Your task to perform on an android device: clear history in the chrome app Image 0: 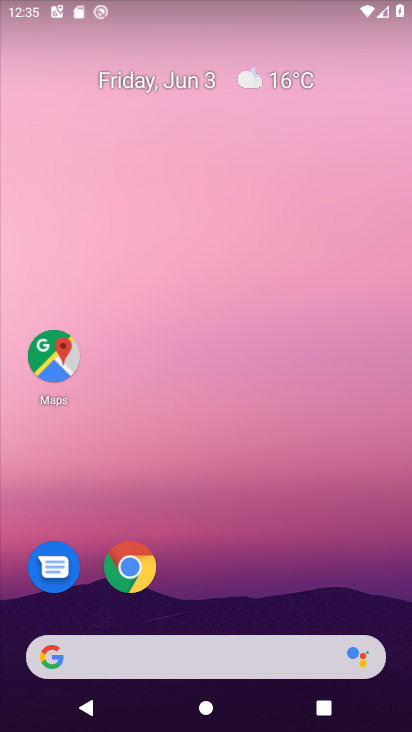
Step 0: click (151, 576)
Your task to perform on an android device: clear history in the chrome app Image 1: 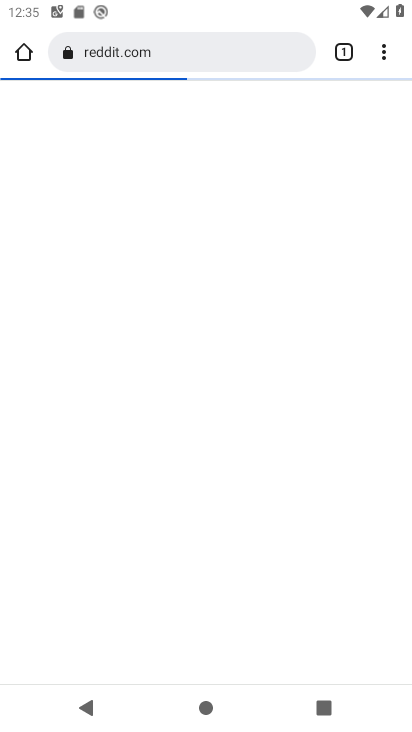
Step 1: drag from (337, 69) to (340, 191)
Your task to perform on an android device: clear history in the chrome app Image 2: 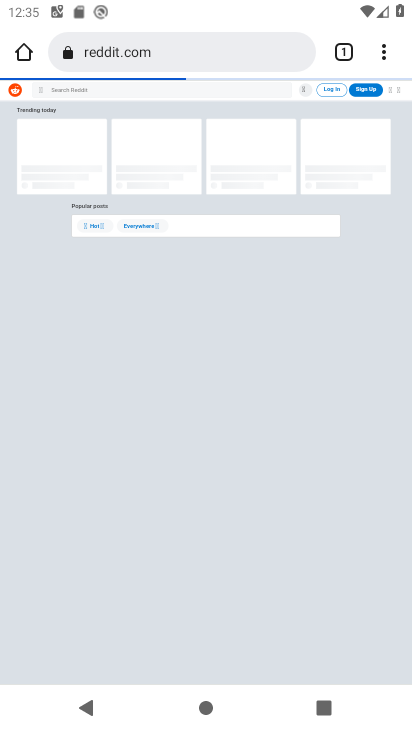
Step 2: click (387, 58)
Your task to perform on an android device: clear history in the chrome app Image 3: 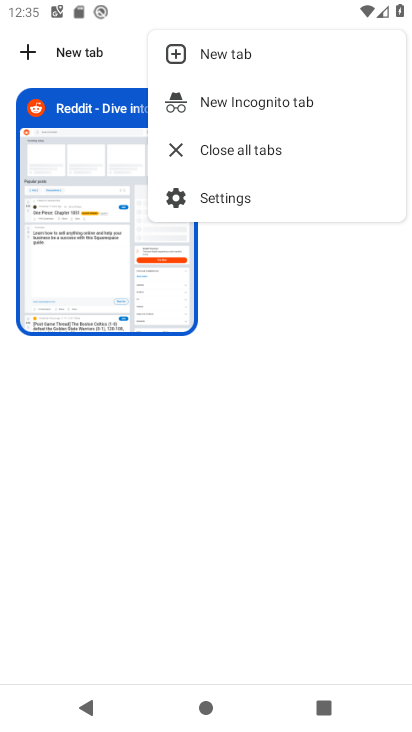
Step 3: click (87, 197)
Your task to perform on an android device: clear history in the chrome app Image 4: 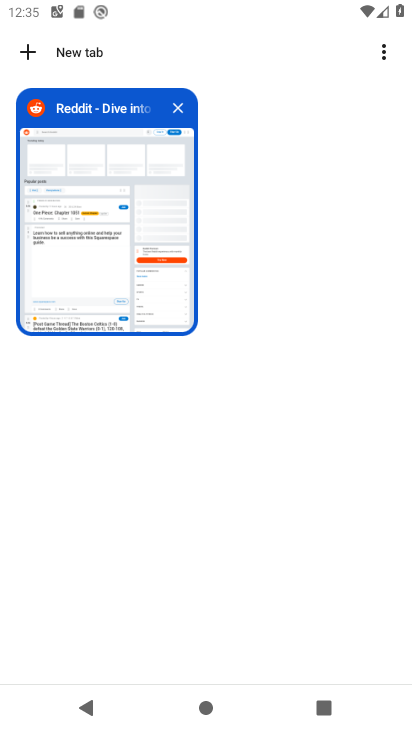
Step 4: click (87, 197)
Your task to perform on an android device: clear history in the chrome app Image 5: 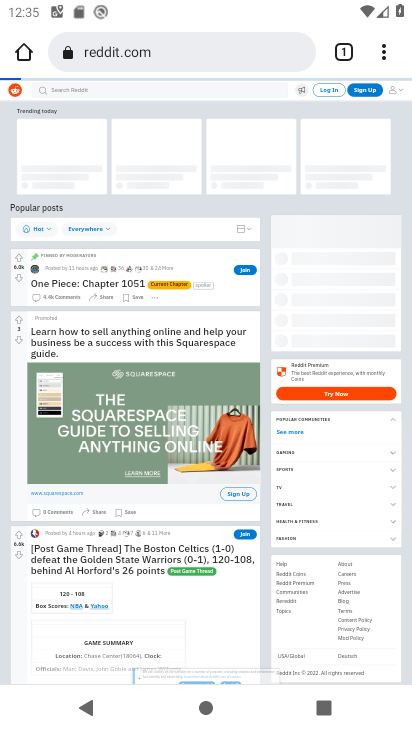
Step 5: click (386, 50)
Your task to perform on an android device: clear history in the chrome app Image 6: 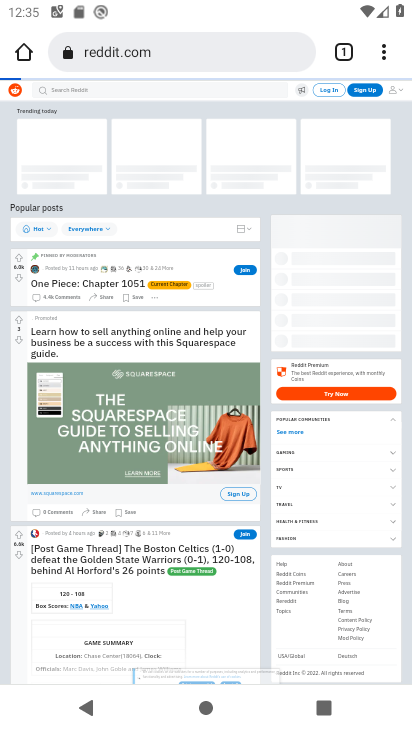
Step 6: click (389, 45)
Your task to perform on an android device: clear history in the chrome app Image 7: 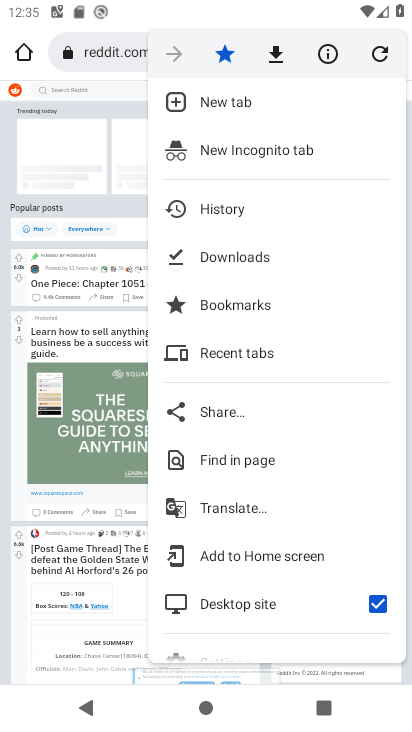
Step 7: click (214, 214)
Your task to perform on an android device: clear history in the chrome app Image 8: 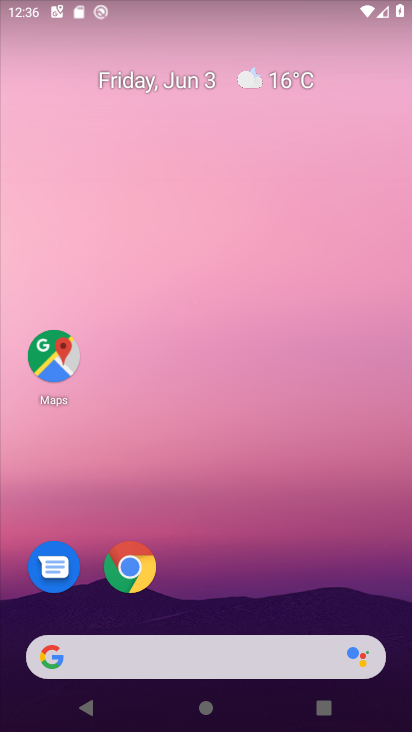
Step 8: click (143, 570)
Your task to perform on an android device: clear history in the chrome app Image 9: 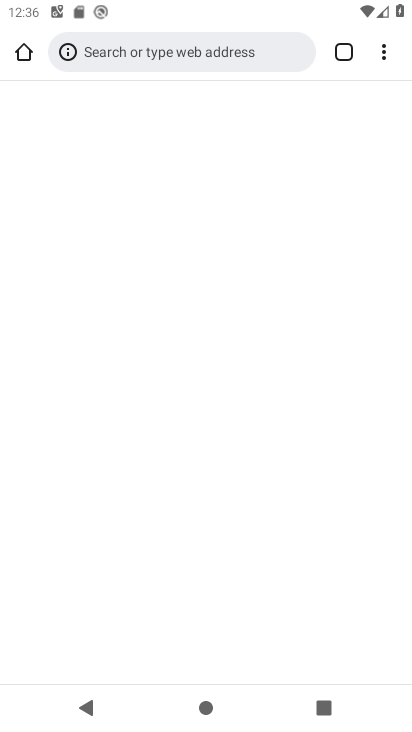
Step 9: click (388, 56)
Your task to perform on an android device: clear history in the chrome app Image 10: 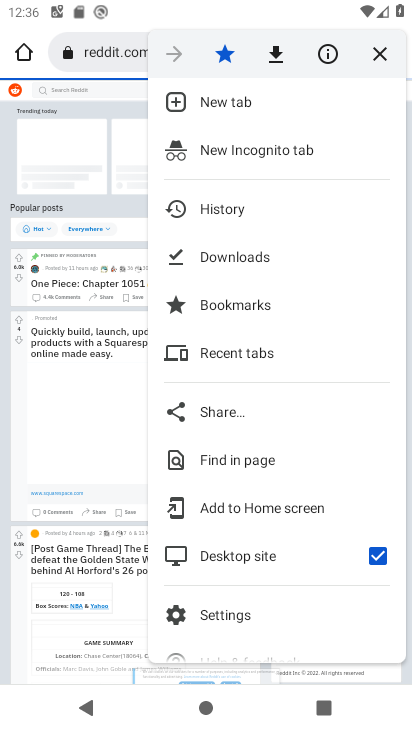
Step 10: click (213, 209)
Your task to perform on an android device: clear history in the chrome app Image 11: 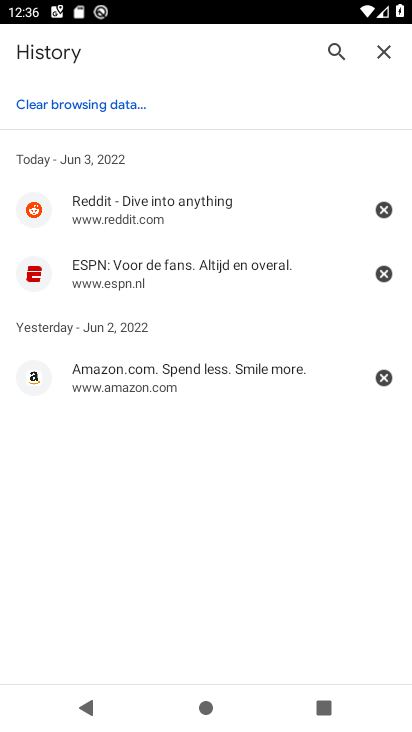
Step 11: click (100, 102)
Your task to perform on an android device: clear history in the chrome app Image 12: 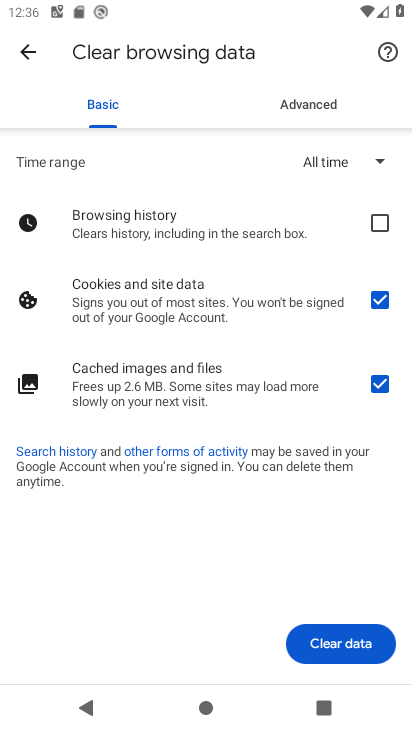
Step 12: click (376, 220)
Your task to perform on an android device: clear history in the chrome app Image 13: 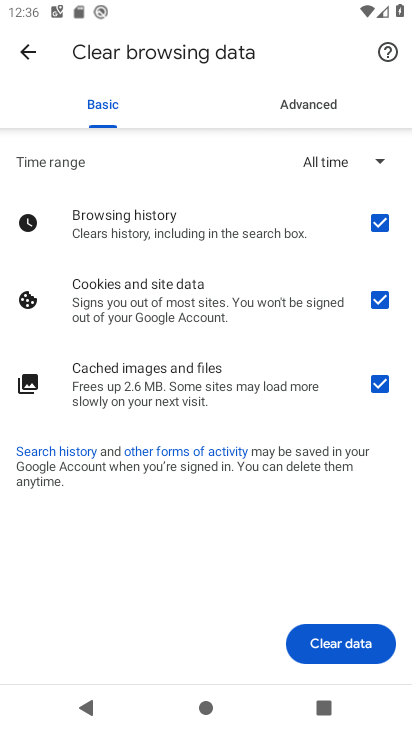
Step 13: click (372, 648)
Your task to perform on an android device: clear history in the chrome app Image 14: 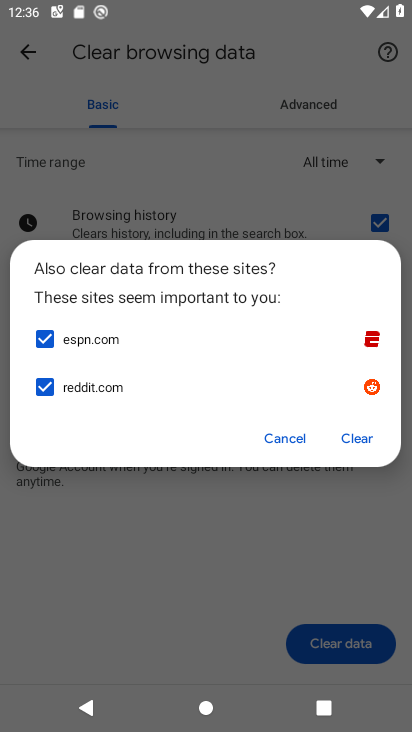
Step 14: click (348, 435)
Your task to perform on an android device: clear history in the chrome app Image 15: 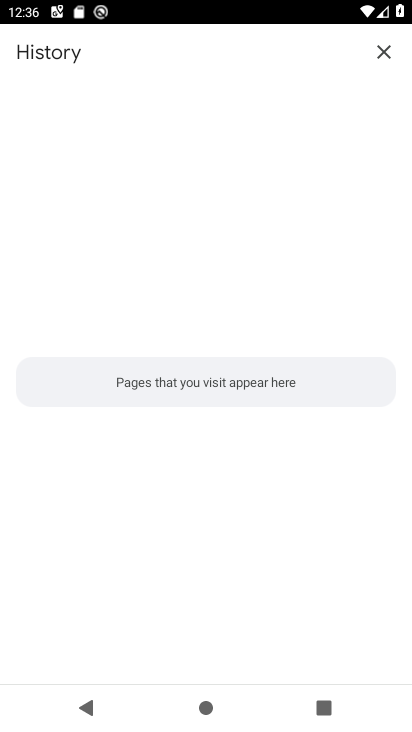
Step 15: task complete